Your task to perform on an android device: Open display settings Image 0: 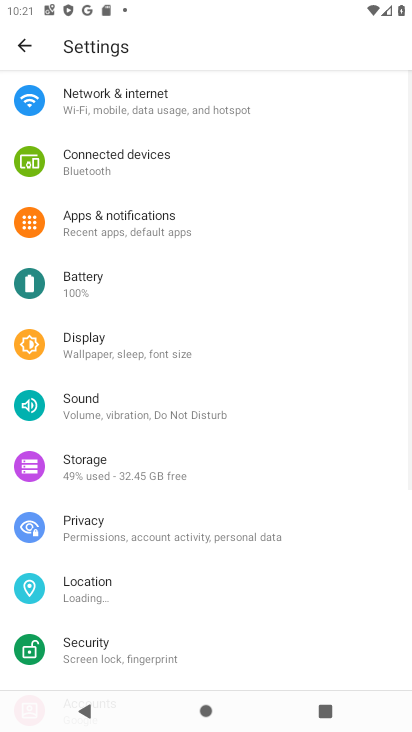
Step 0: press home button
Your task to perform on an android device: Open display settings Image 1: 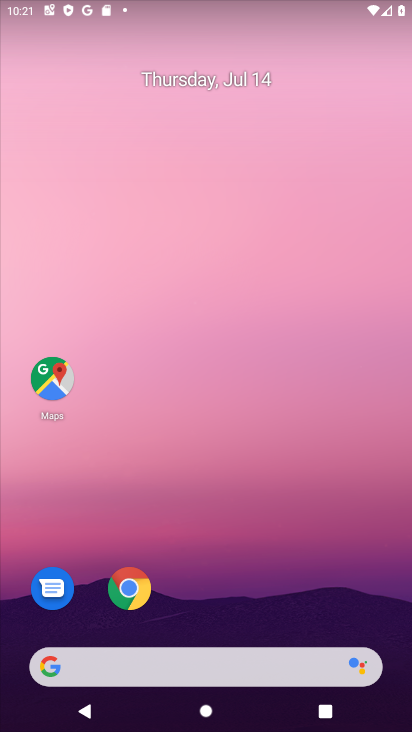
Step 1: drag from (219, 666) to (353, 0)
Your task to perform on an android device: Open display settings Image 2: 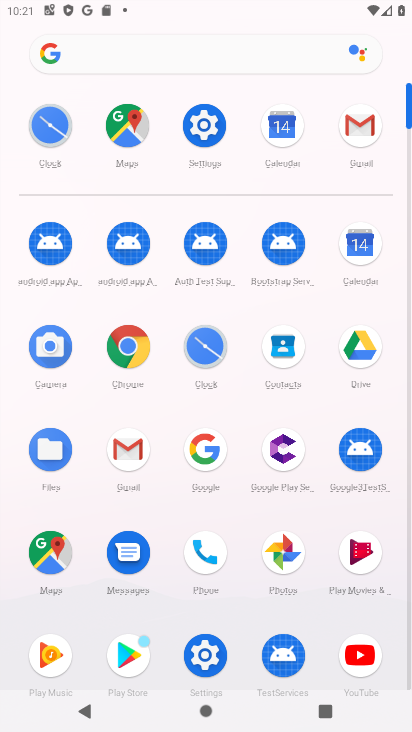
Step 2: click (209, 128)
Your task to perform on an android device: Open display settings Image 3: 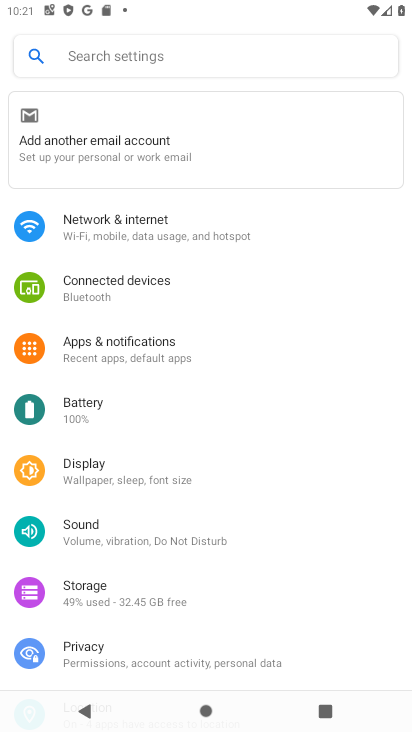
Step 3: click (137, 478)
Your task to perform on an android device: Open display settings Image 4: 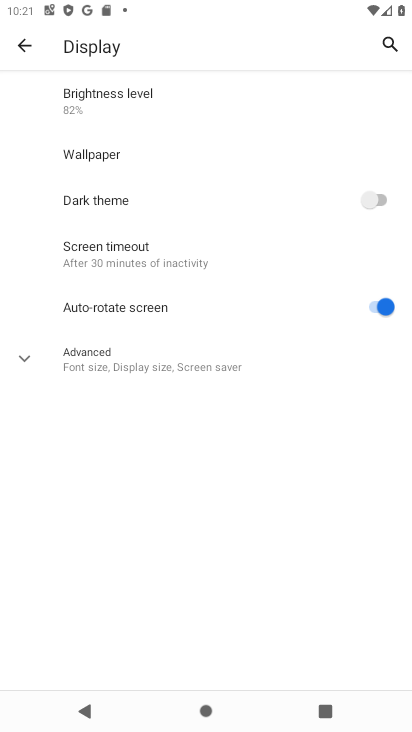
Step 4: task complete